Your task to perform on an android device: turn on data saver in the chrome app Image 0: 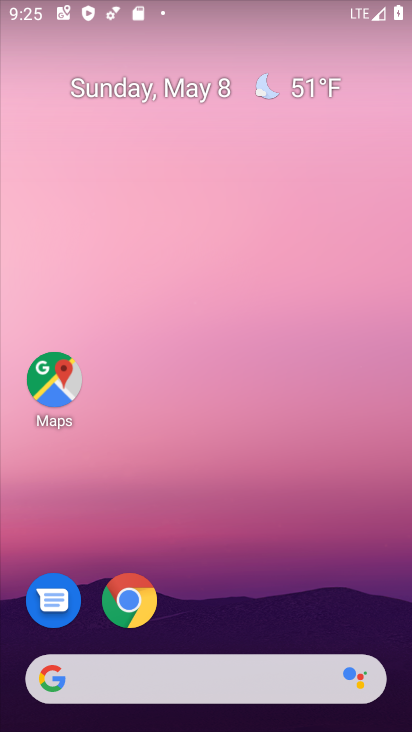
Step 0: click (144, 596)
Your task to perform on an android device: turn on data saver in the chrome app Image 1: 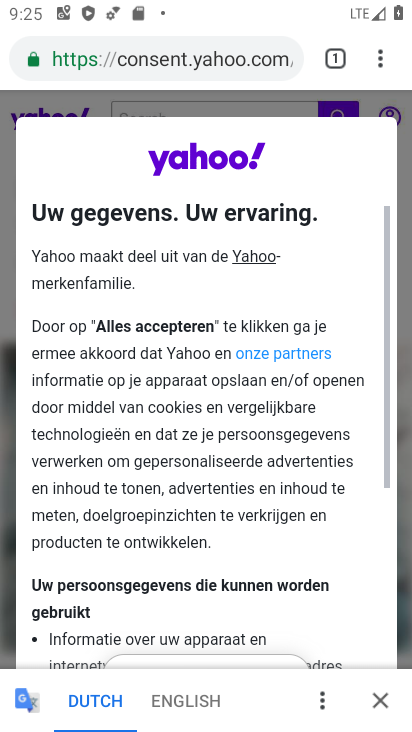
Step 1: drag from (385, 59) to (190, 631)
Your task to perform on an android device: turn on data saver in the chrome app Image 2: 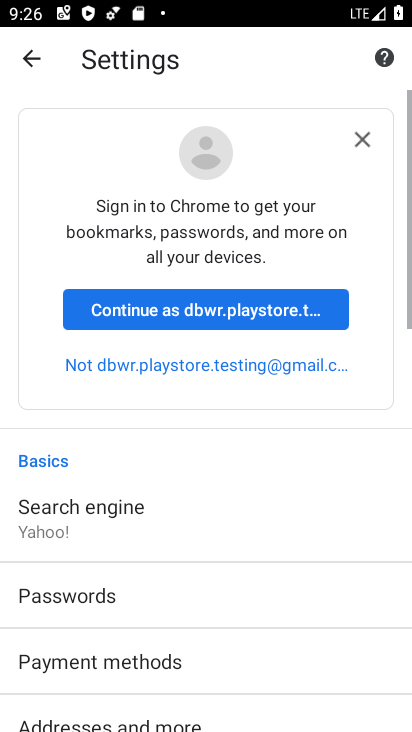
Step 2: drag from (190, 631) to (180, 120)
Your task to perform on an android device: turn on data saver in the chrome app Image 3: 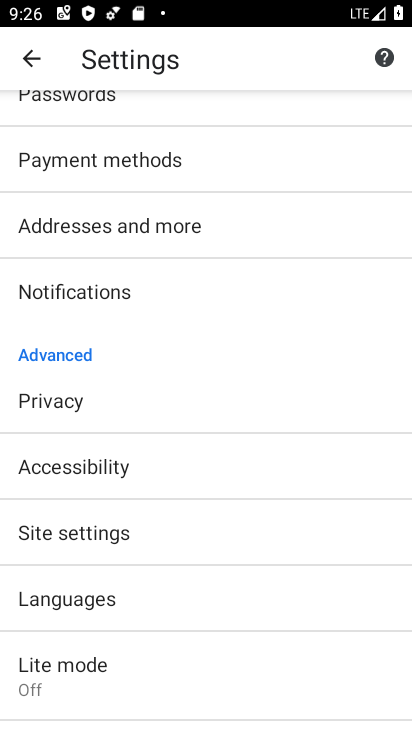
Step 3: click (43, 680)
Your task to perform on an android device: turn on data saver in the chrome app Image 4: 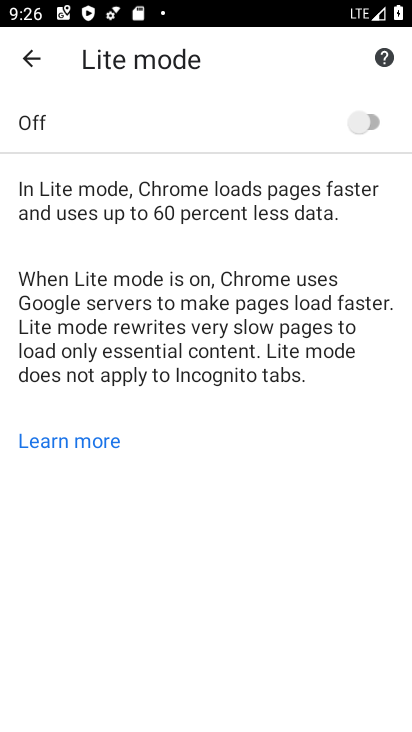
Step 4: click (365, 123)
Your task to perform on an android device: turn on data saver in the chrome app Image 5: 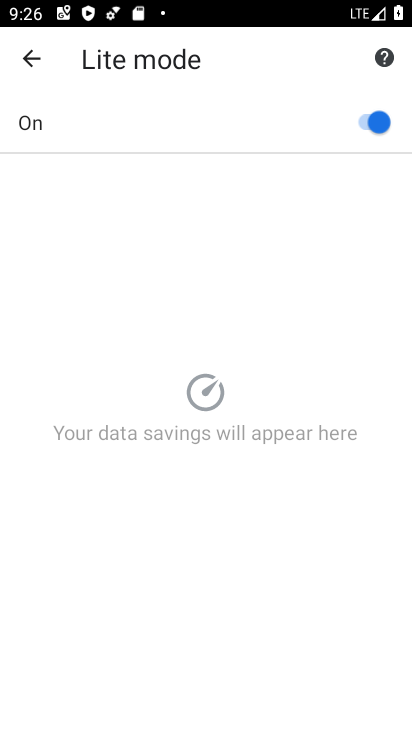
Step 5: task complete